Your task to perform on an android device: Open battery settings Image 0: 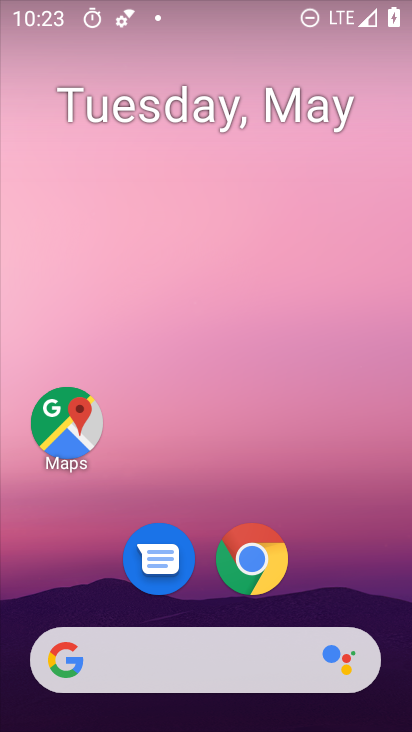
Step 0: drag from (396, 648) to (327, 163)
Your task to perform on an android device: Open battery settings Image 1: 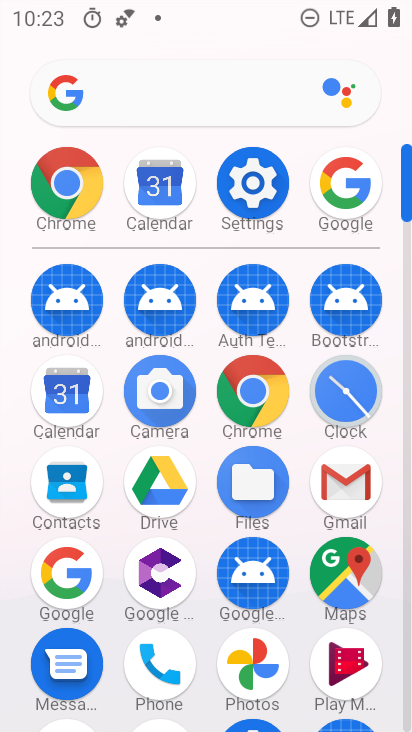
Step 1: click (266, 196)
Your task to perform on an android device: Open battery settings Image 2: 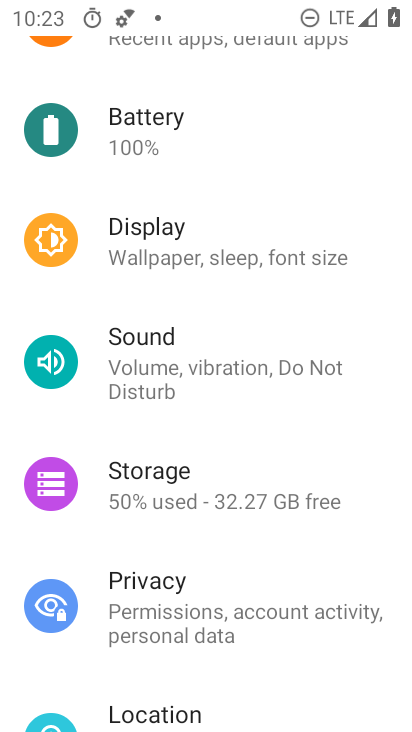
Step 2: click (195, 144)
Your task to perform on an android device: Open battery settings Image 3: 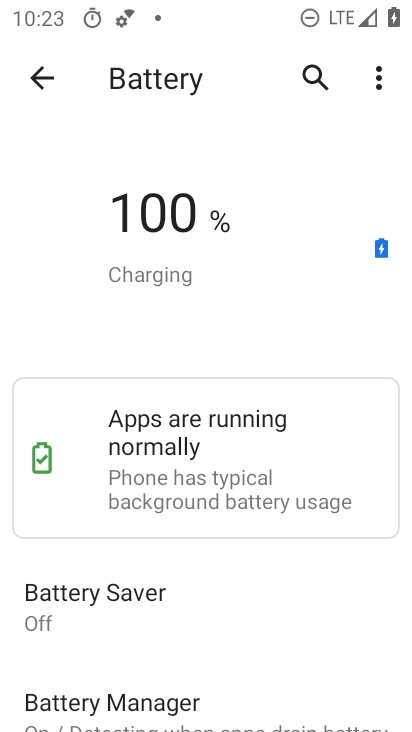
Step 3: task complete